Your task to perform on an android device: Open Maps and search for coffee Image 0: 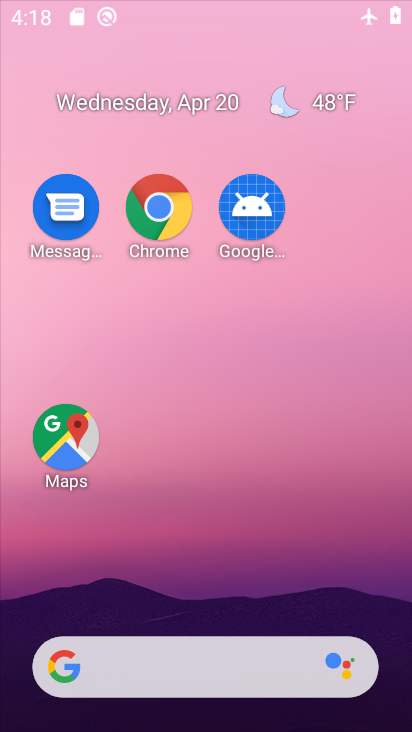
Step 0: click (242, 150)
Your task to perform on an android device: Open Maps and search for coffee Image 1: 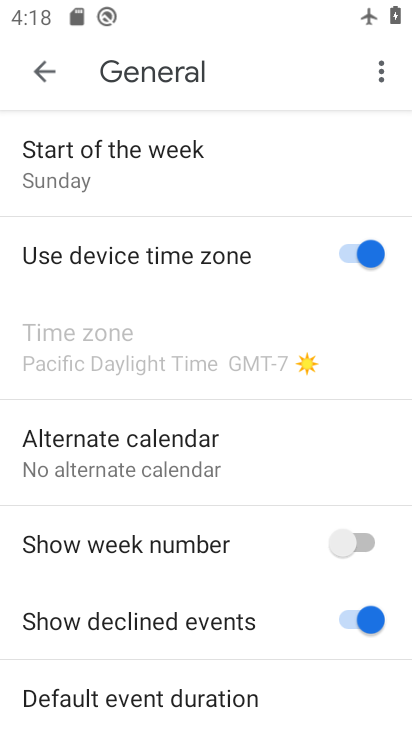
Step 1: drag from (166, 433) to (166, 294)
Your task to perform on an android device: Open Maps and search for coffee Image 2: 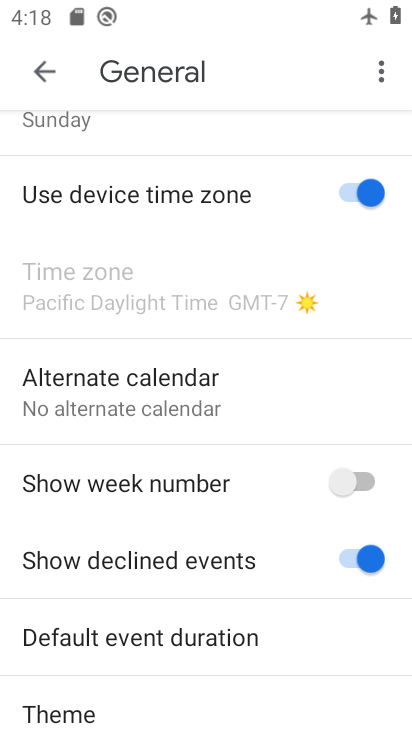
Step 2: press home button
Your task to perform on an android device: Open Maps and search for coffee Image 3: 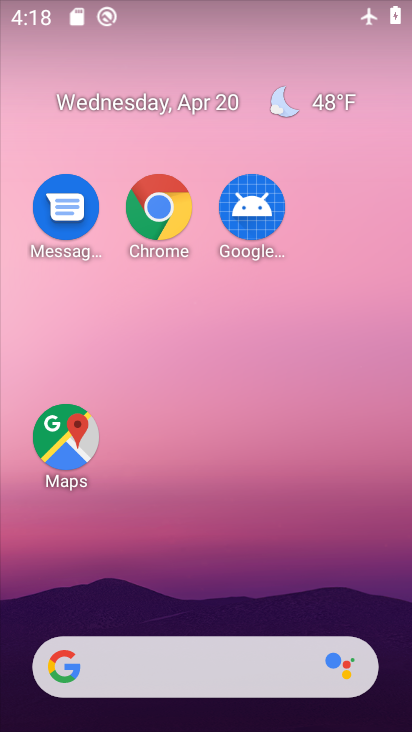
Step 3: drag from (160, 373) to (162, 215)
Your task to perform on an android device: Open Maps and search for coffee Image 4: 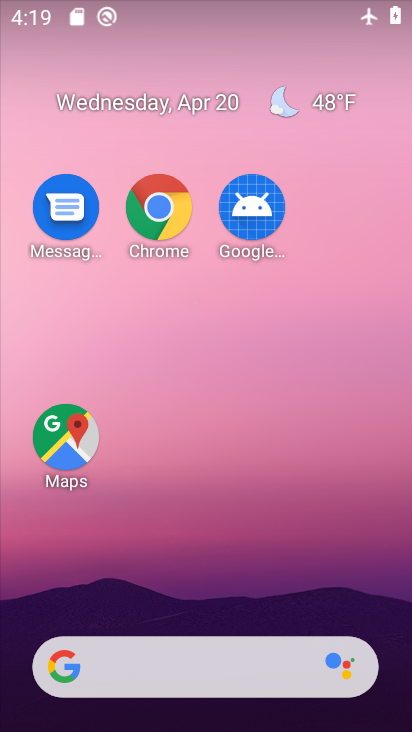
Step 4: drag from (290, 512) to (407, 4)
Your task to perform on an android device: Open Maps and search for coffee Image 5: 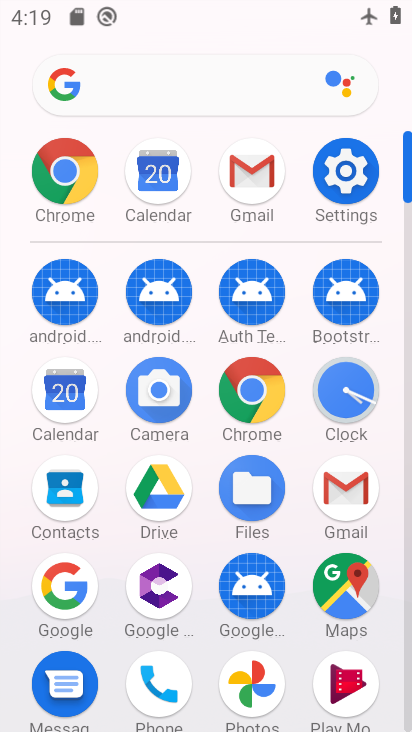
Step 5: click (354, 591)
Your task to perform on an android device: Open Maps and search for coffee Image 6: 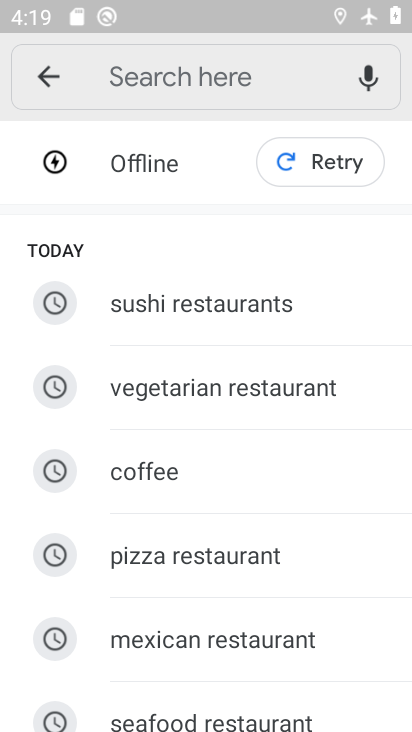
Step 6: click (206, 474)
Your task to perform on an android device: Open Maps and search for coffee Image 7: 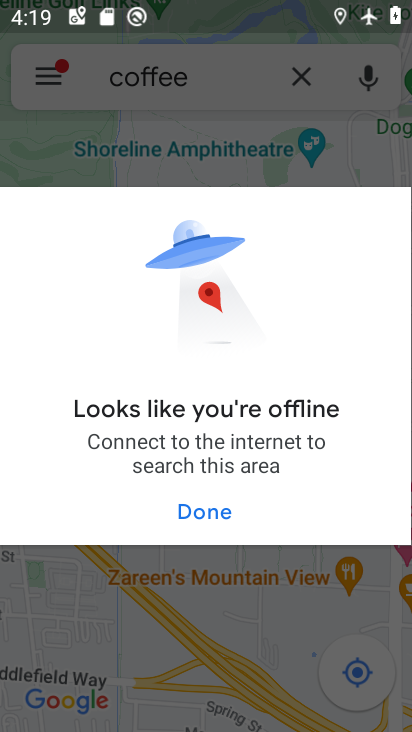
Step 7: task complete